Your task to perform on an android device: Open Youtube and go to "Your channel" Image 0: 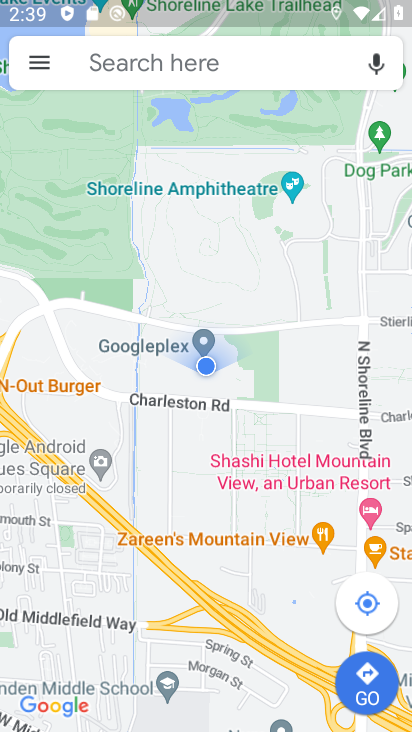
Step 0: press home button
Your task to perform on an android device: Open Youtube and go to "Your channel" Image 1: 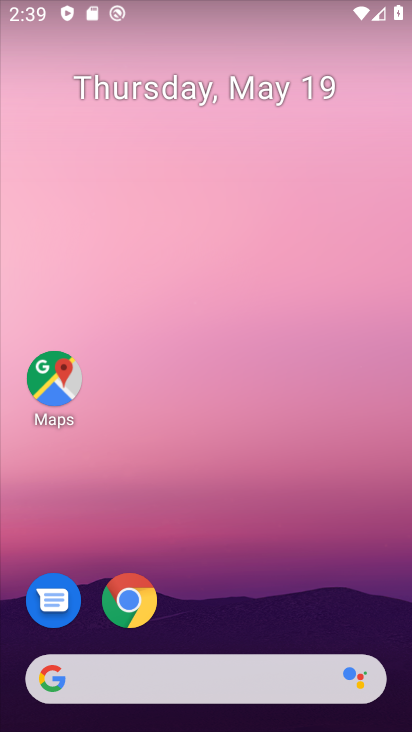
Step 1: drag from (194, 607) to (211, 221)
Your task to perform on an android device: Open Youtube and go to "Your channel" Image 2: 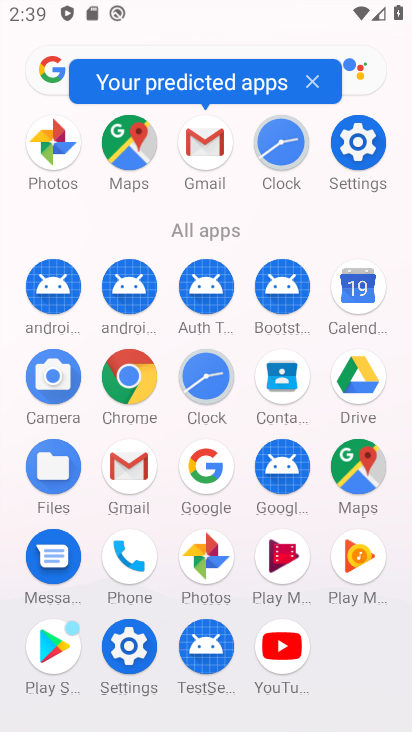
Step 2: click (269, 642)
Your task to perform on an android device: Open Youtube and go to "Your channel" Image 3: 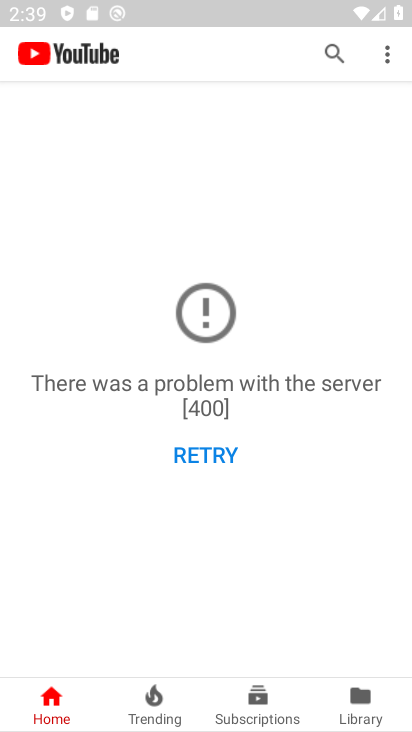
Step 3: click (196, 453)
Your task to perform on an android device: Open Youtube and go to "Your channel" Image 4: 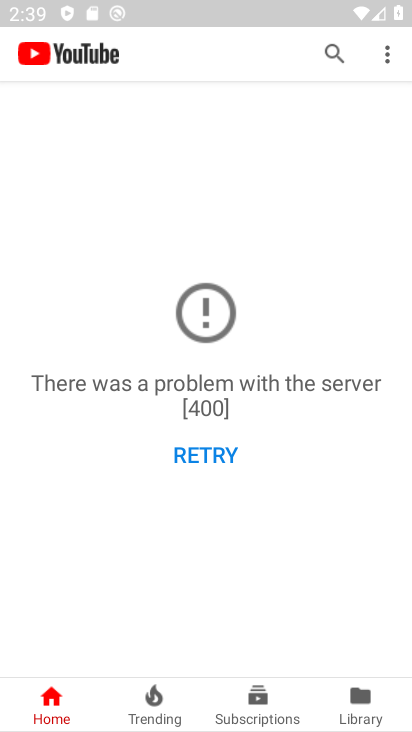
Step 4: click (198, 454)
Your task to perform on an android device: Open Youtube and go to "Your channel" Image 5: 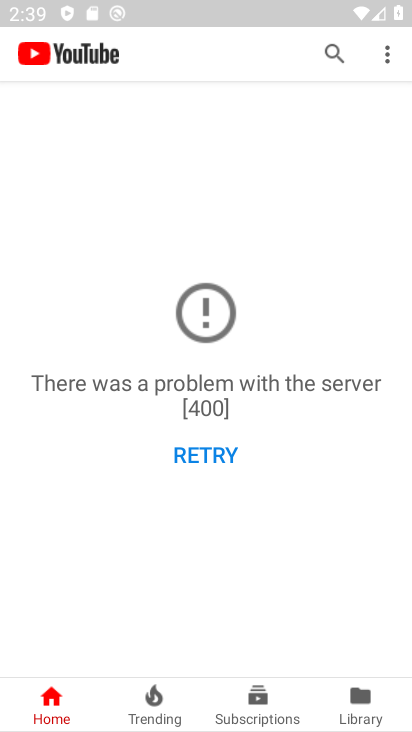
Step 5: click (200, 456)
Your task to perform on an android device: Open Youtube and go to "Your channel" Image 6: 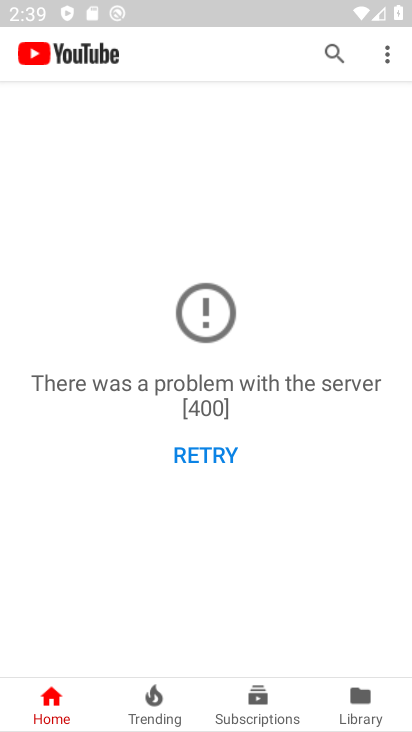
Step 6: task complete